Your task to perform on an android device: Set the phone to "Do not disturb". Image 0: 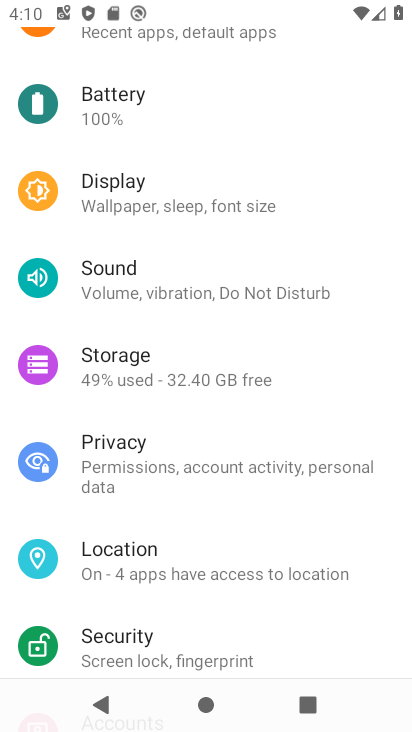
Step 0: press home button
Your task to perform on an android device: Set the phone to "Do not disturb". Image 1: 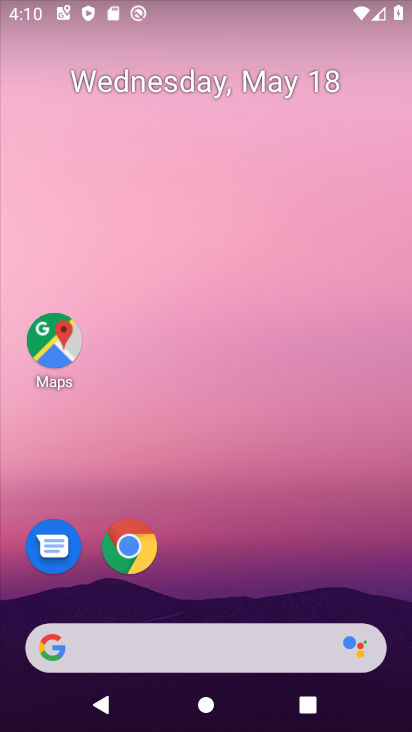
Step 1: drag from (212, 602) to (255, 108)
Your task to perform on an android device: Set the phone to "Do not disturb". Image 2: 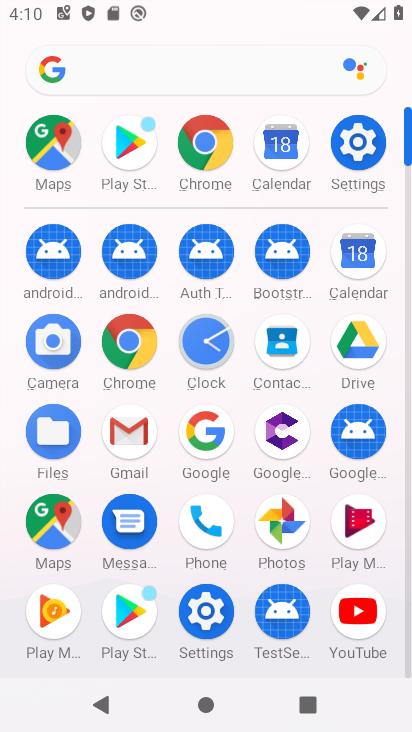
Step 2: click (209, 599)
Your task to perform on an android device: Set the phone to "Do not disturb". Image 3: 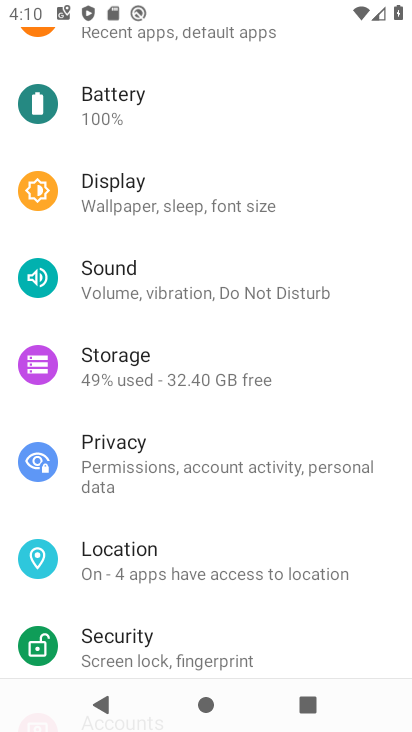
Step 3: click (160, 295)
Your task to perform on an android device: Set the phone to "Do not disturb". Image 4: 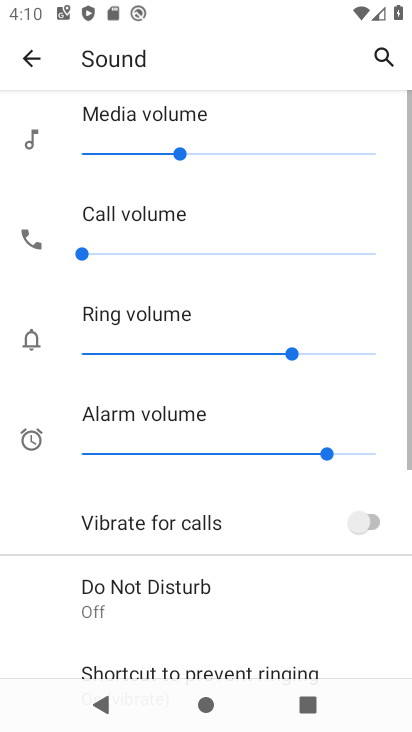
Step 4: click (132, 597)
Your task to perform on an android device: Set the phone to "Do not disturb". Image 5: 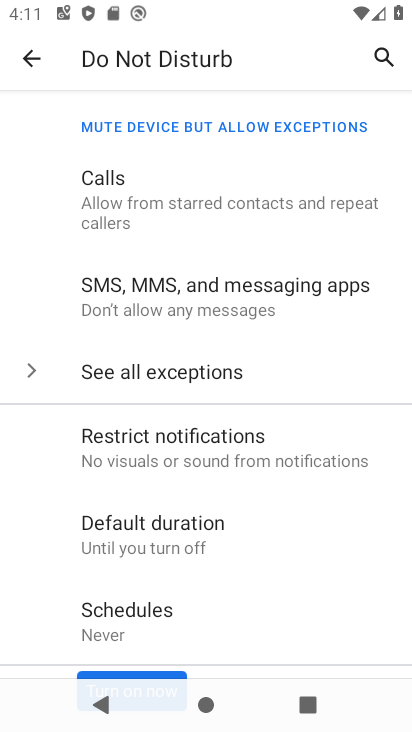
Step 5: drag from (180, 544) to (282, 112)
Your task to perform on an android device: Set the phone to "Do not disturb". Image 6: 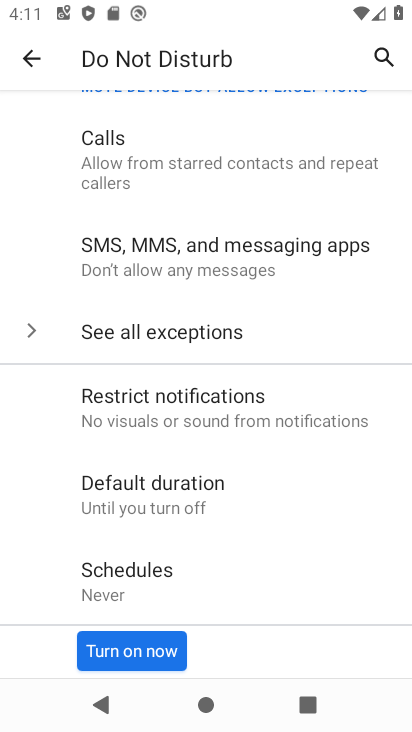
Step 6: click (147, 652)
Your task to perform on an android device: Set the phone to "Do not disturb". Image 7: 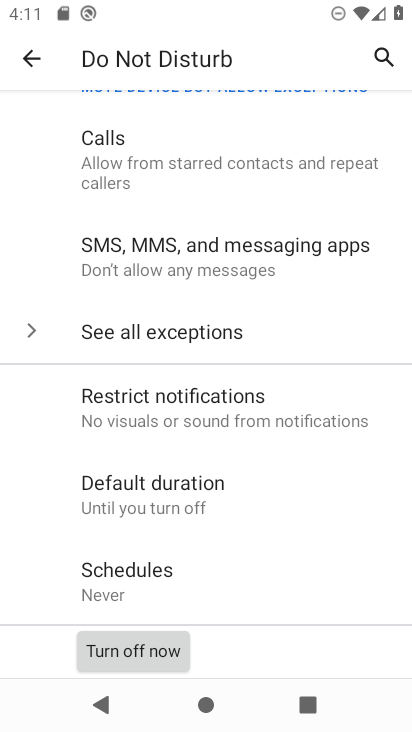
Step 7: task complete